Your task to perform on an android device: toggle location history Image 0: 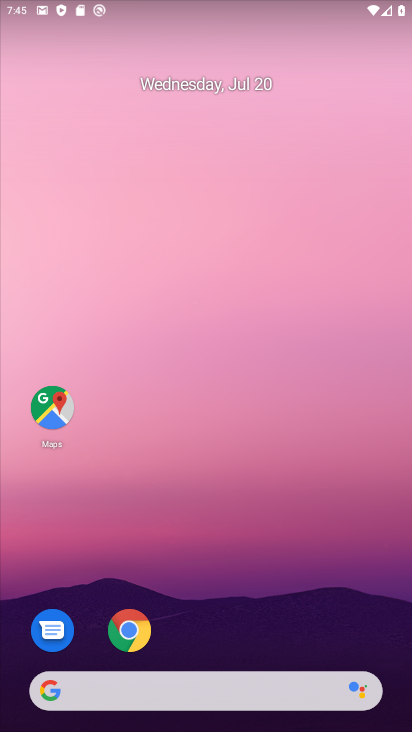
Step 0: drag from (280, 399) to (280, 115)
Your task to perform on an android device: toggle location history Image 1: 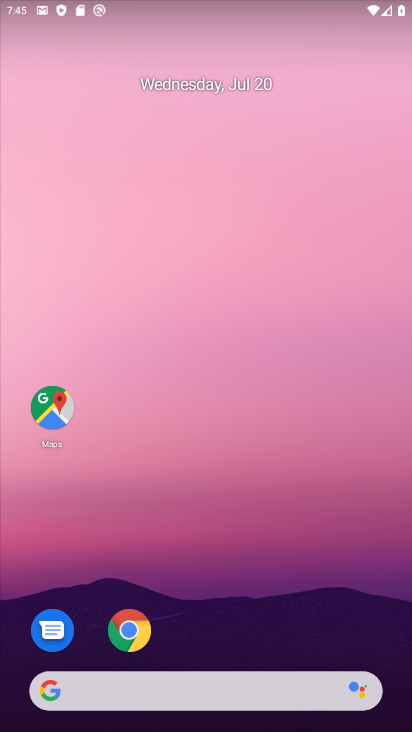
Step 1: drag from (293, 611) to (265, 9)
Your task to perform on an android device: toggle location history Image 2: 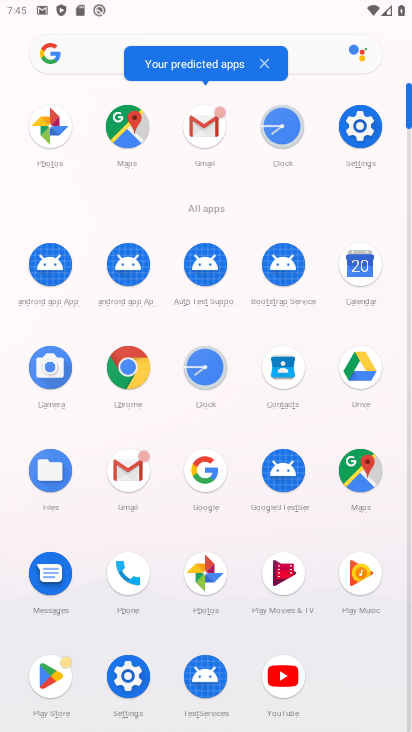
Step 2: click (356, 146)
Your task to perform on an android device: toggle location history Image 3: 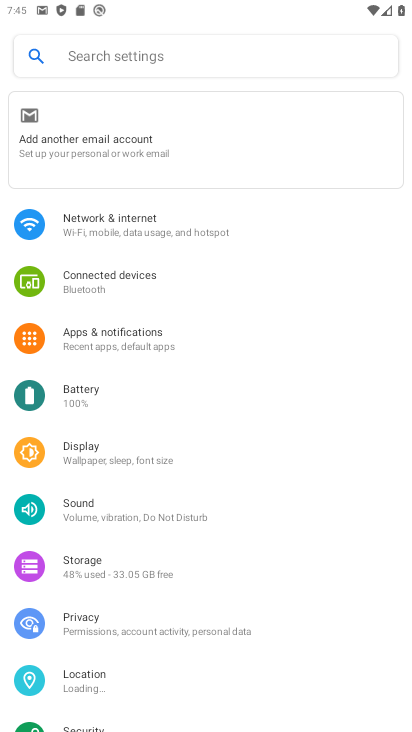
Step 3: click (93, 674)
Your task to perform on an android device: toggle location history Image 4: 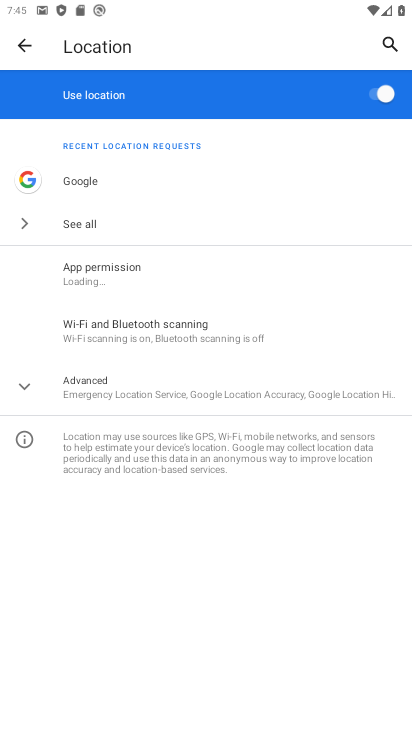
Step 4: click (149, 391)
Your task to perform on an android device: toggle location history Image 5: 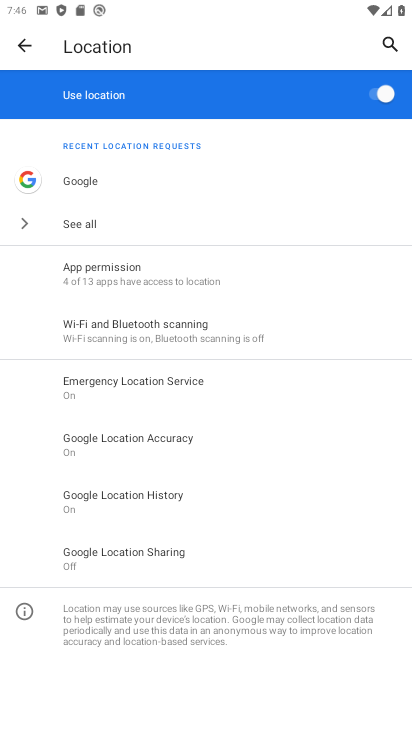
Step 5: click (145, 490)
Your task to perform on an android device: toggle location history Image 6: 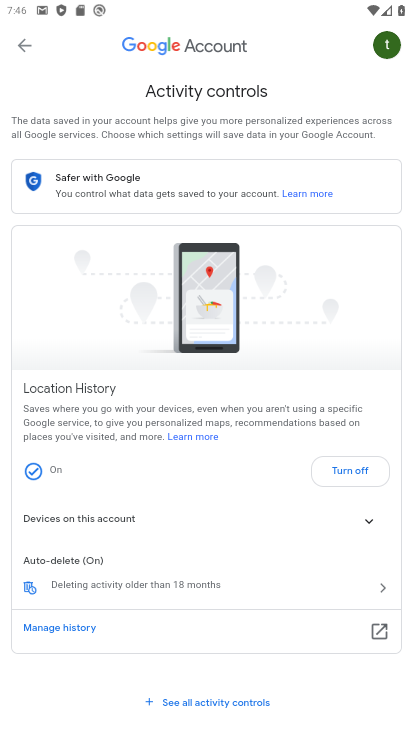
Step 6: click (355, 470)
Your task to perform on an android device: toggle location history Image 7: 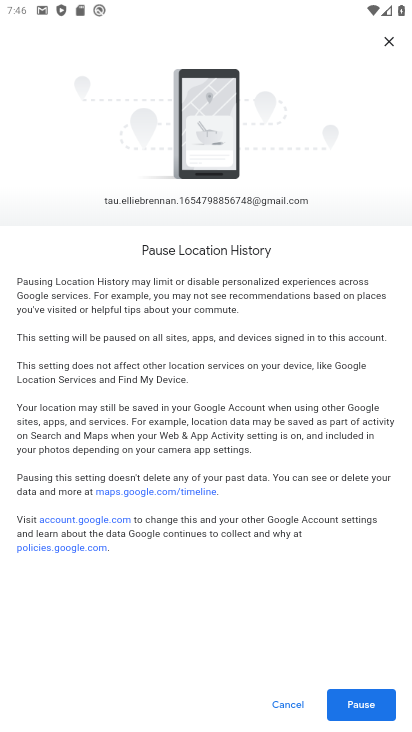
Step 7: click (367, 706)
Your task to perform on an android device: toggle location history Image 8: 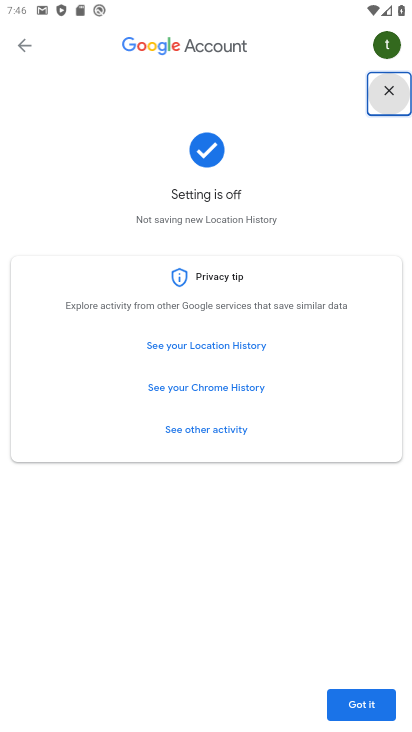
Step 8: task complete